Your task to perform on an android device: Search for seafood restaurants on Google Maps Image 0: 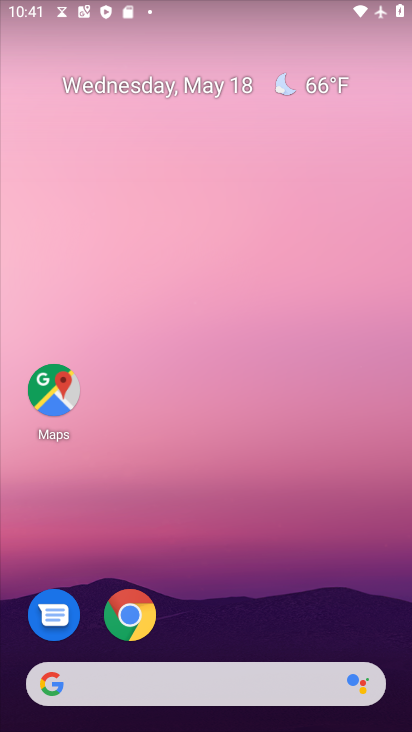
Step 0: drag from (220, 366) to (206, 23)
Your task to perform on an android device: Search for seafood restaurants on Google Maps Image 1: 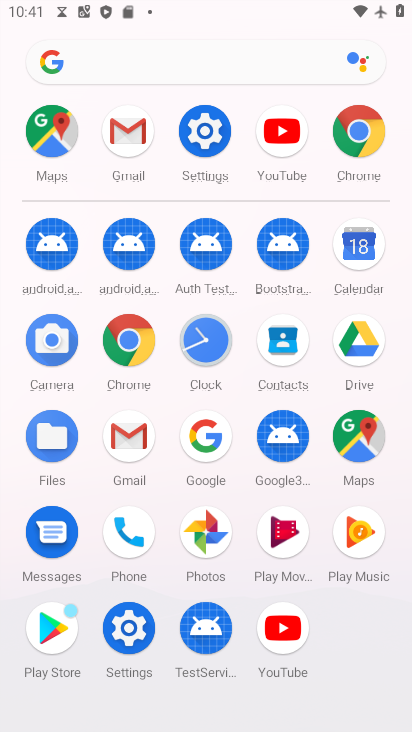
Step 1: drag from (7, 537) to (19, 306)
Your task to perform on an android device: Search for seafood restaurants on Google Maps Image 2: 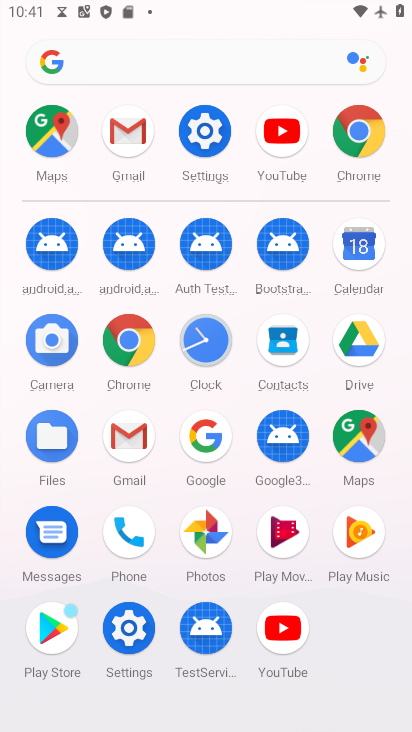
Step 2: click (357, 431)
Your task to perform on an android device: Search for seafood restaurants on Google Maps Image 3: 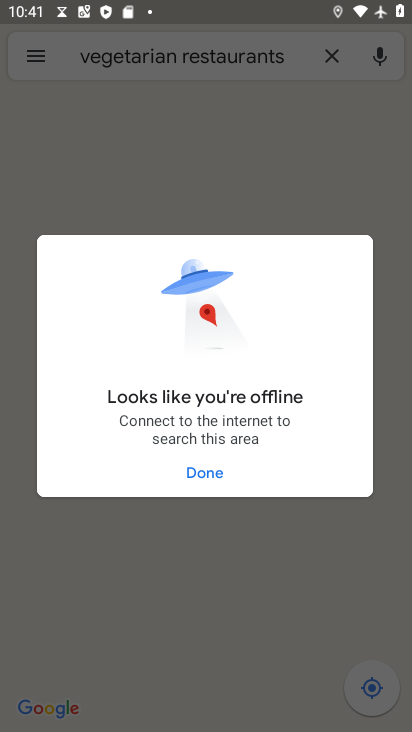
Step 3: click (203, 470)
Your task to perform on an android device: Search for seafood restaurants on Google Maps Image 4: 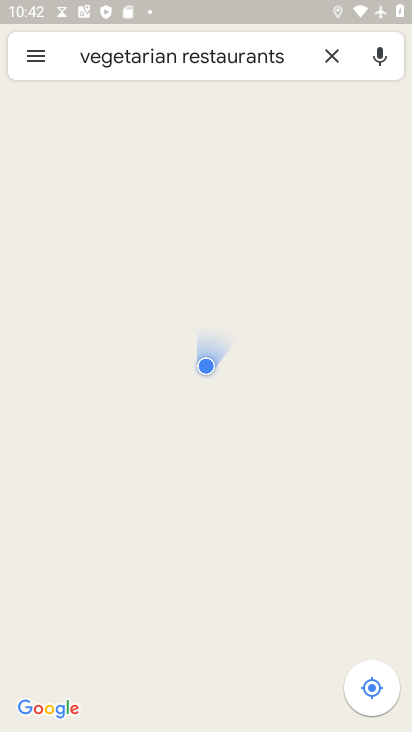
Step 4: click (322, 53)
Your task to perform on an android device: Search for seafood restaurants on Google Maps Image 5: 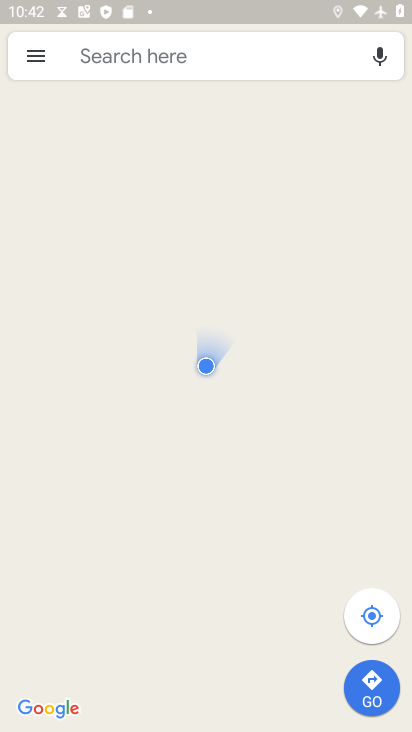
Step 5: click (216, 44)
Your task to perform on an android device: Search for seafood restaurants on Google Maps Image 6: 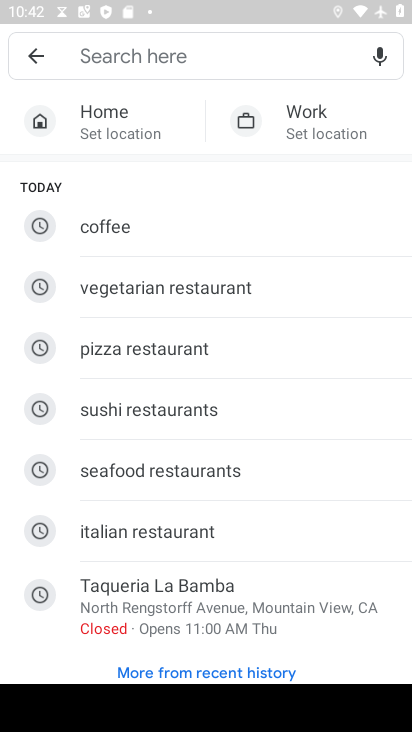
Step 6: click (190, 465)
Your task to perform on an android device: Search for seafood restaurants on Google Maps Image 7: 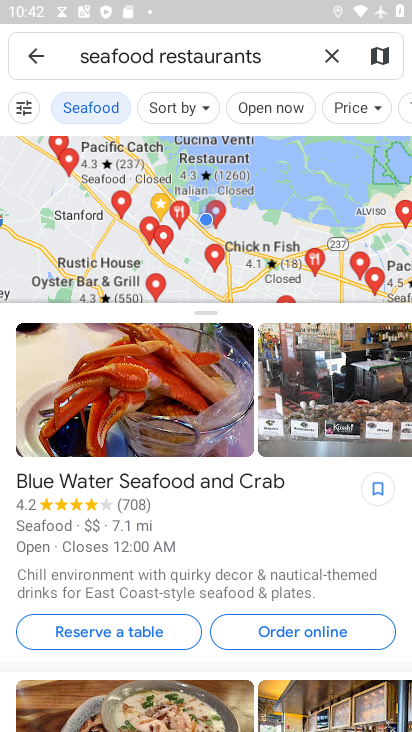
Step 7: task complete